Your task to perform on an android device: Show me the top rated dinnerware on Crate & Barrel Image 0: 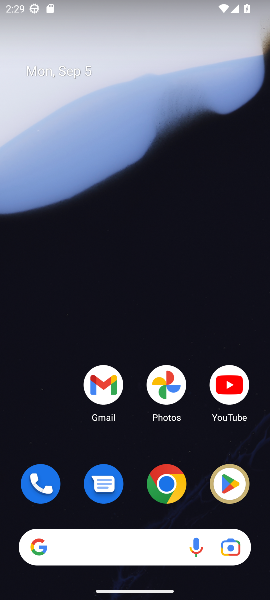
Step 0: click (168, 485)
Your task to perform on an android device: Show me the top rated dinnerware on Crate & Barrel Image 1: 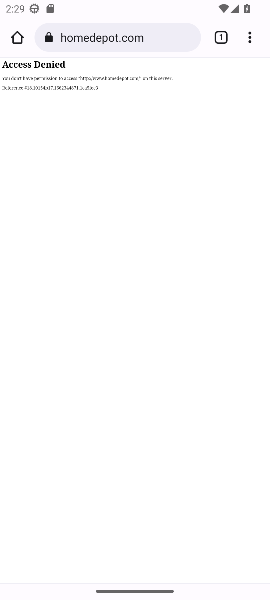
Step 1: click (151, 29)
Your task to perform on an android device: Show me the top rated dinnerware on Crate & Barrel Image 2: 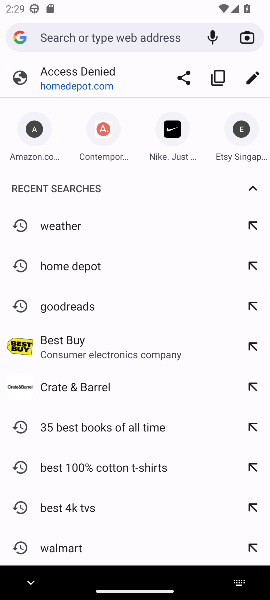
Step 2: type " Crate & Barrel"
Your task to perform on an android device: Show me the top rated dinnerware on Crate & Barrel Image 3: 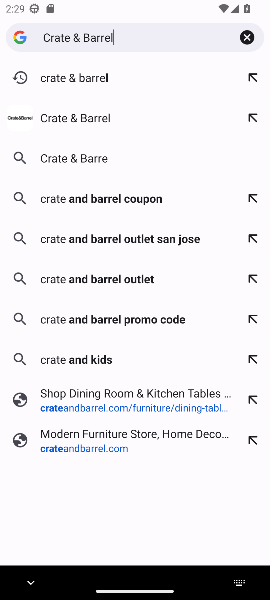
Step 3: press enter
Your task to perform on an android device: Show me the top rated dinnerware on Crate & Barrel Image 4: 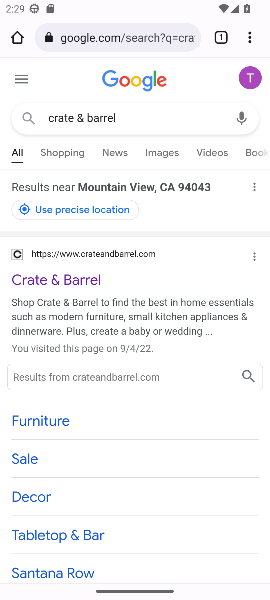
Step 4: click (72, 278)
Your task to perform on an android device: Show me the top rated dinnerware on Crate & Barrel Image 5: 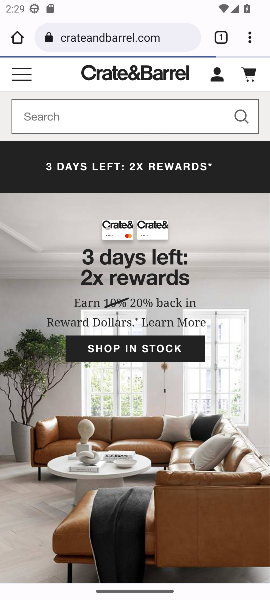
Step 5: click (135, 116)
Your task to perform on an android device: Show me the top rated dinnerware on Crate & Barrel Image 6: 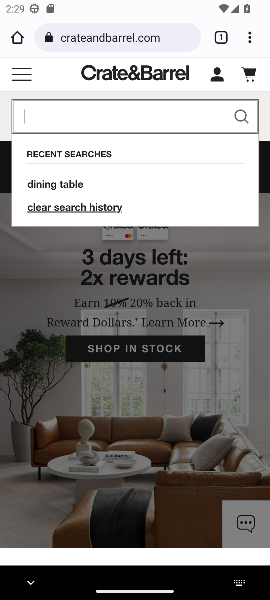
Step 6: type "dinnerware "
Your task to perform on an android device: Show me the top rated dinnerware on Crate & Barrel Image 7: 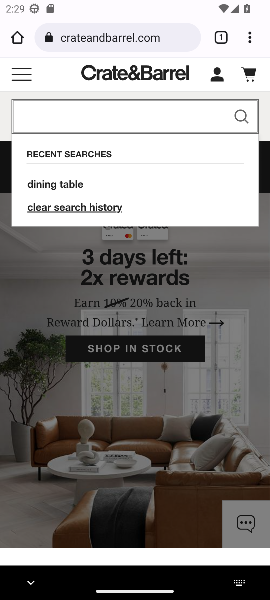
Step 7: press enter
Your task to perform on an android device: Show me the top rated dinnerware on Crate & Barrel Image 8: 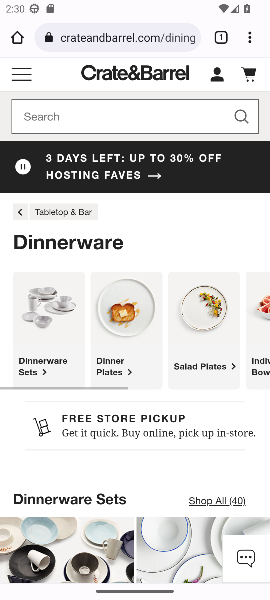
Step 8: drag from (123, 466) to (269, 77)
Your task to perform on an android device: Show me the top rated dinnerware on Crate & Barrel Image 9: 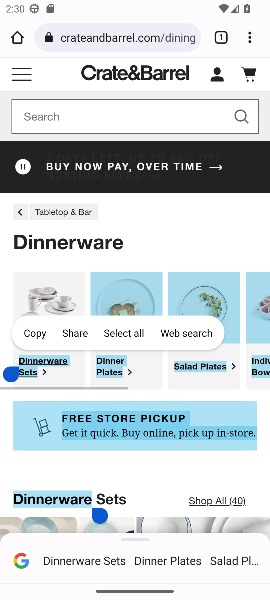
Step 9: click (244, 200)
Your task to perform on an android device: Show me the top rated dinnerware on Crate & Barrel Image 10: 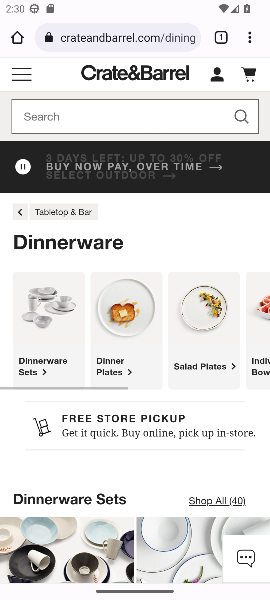
Step 10: task complete